Your task to perform on an android device: change the upload size in google photos Image 0: 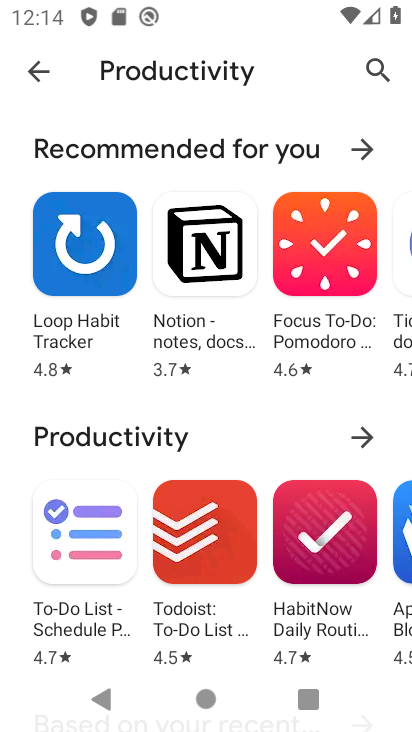
Step 0: press home button
Your task to perform on an android device: change the upload size in google photos Image 1: 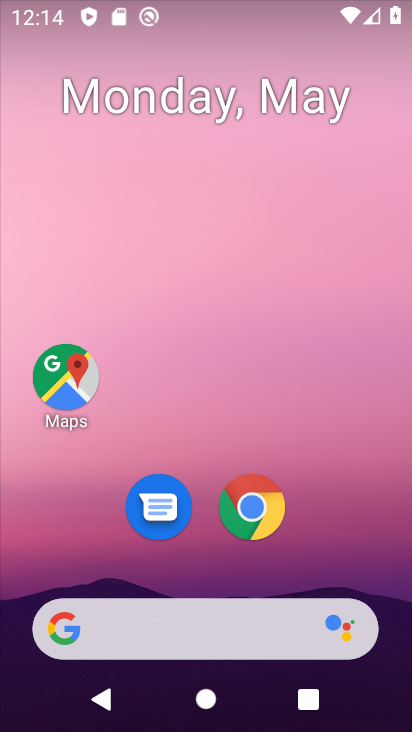
Step 1: drag from (243, 724) to (248, 49)
Your task to perform on an android device: change the upload size in google photos Image 2: 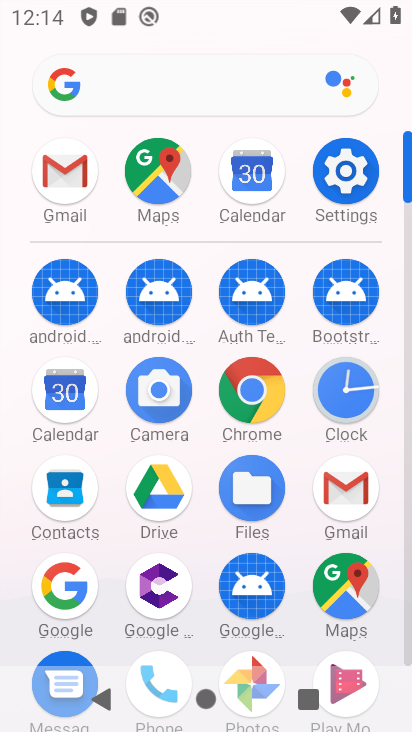
Step 2: drag from (284, 640) to (290, 232)
Your task to perform on an android device: change the upload size in google photos Image 3: 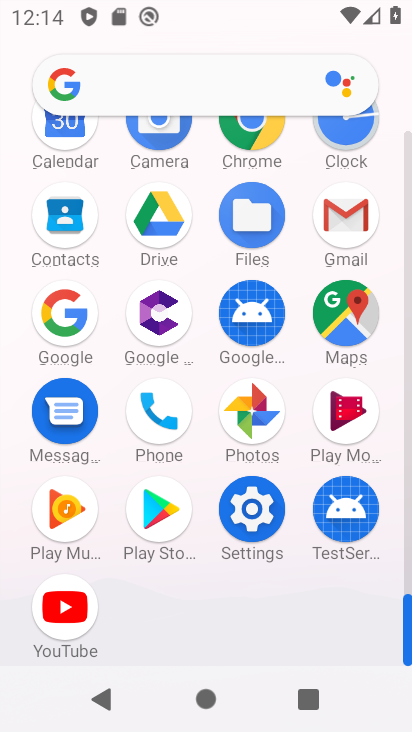
Step 3: click (260, 417)
Your task to perform on an android device: change the upload size in google photos Image 4: 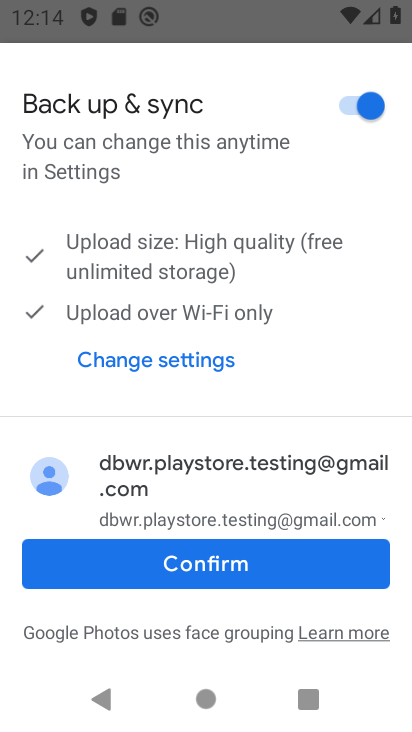
Step 4: click (220, 559)
Your task to perform on an android device: change the upload size in google photos Image 5: 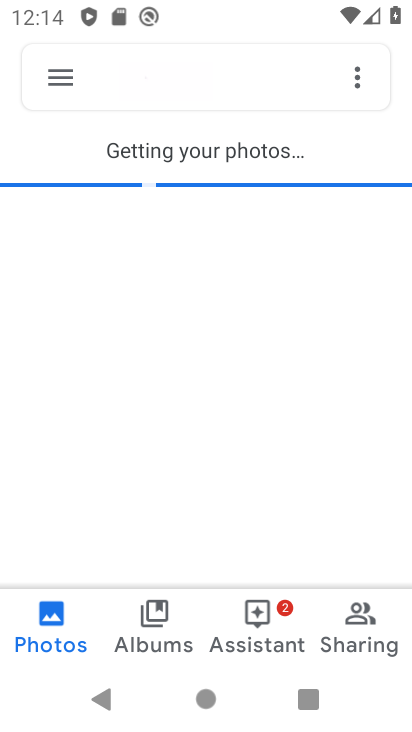
Step 5: click (62, 76)
Your task to perform on an android device: change the upload size in google photos Image 6: 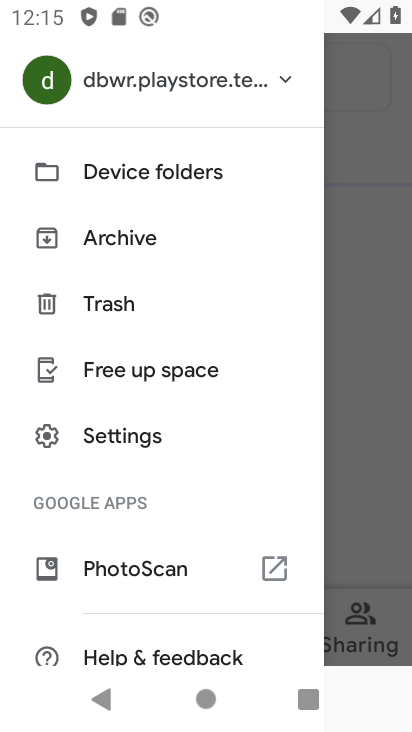
Step 6: drag from (135, 609) to (140, 272)
Your task to perform on an android device: change the upload size in google photos Image 7: 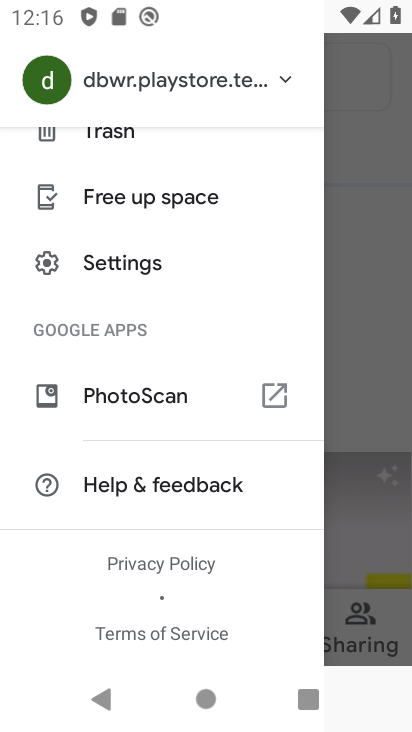
Step 7: drag from (154, 181) to (179, 577)
Your task to perform on an android device: change the upload size in google photos Image 8: 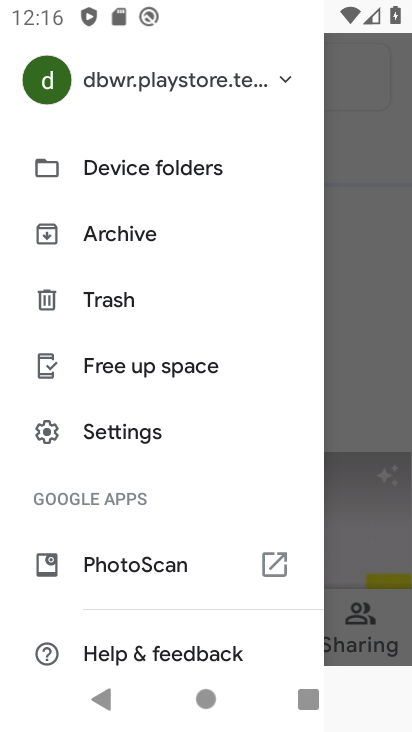
Step 8: click (123, 429)
Your task to perform on an android device: change the upload size in google photos Image 9: 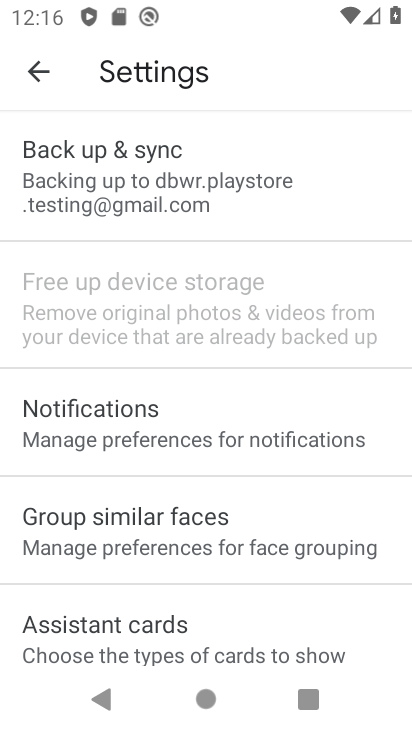
Step 9: drag from (132, 578) to (145, 641)
Your task to perform on an android device: change the upload size in google photos Image 10: 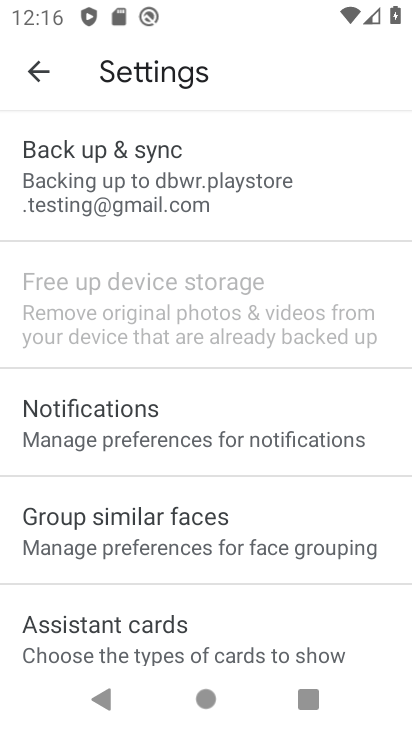
Step 10: click (132, 175)
Your task to perform on an android device: change the upload size in google photos Image 11: 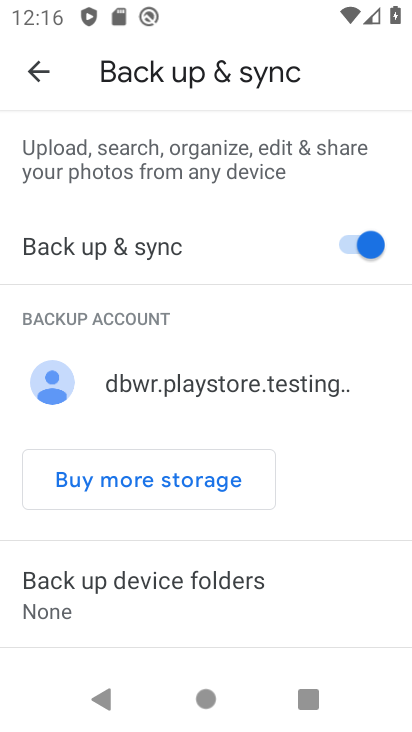
Step 11: drag from (169, 628) to (169, 216)
Your task to perform on an android device: change the upload size in google photos Image 12: 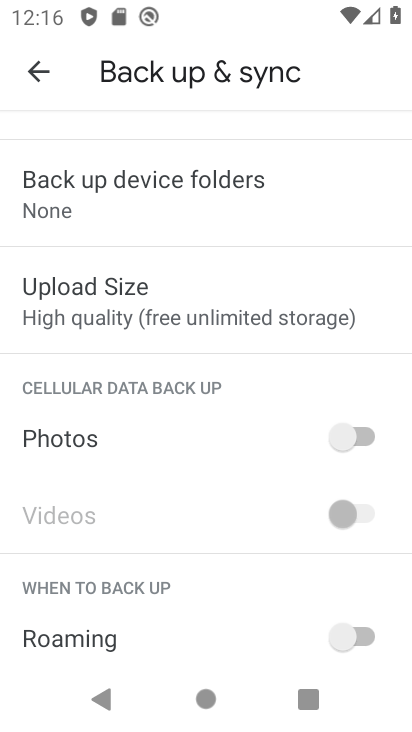
Step 12: click (99, 299)
Your task to perform on an android device: change the upload size in google photos Image 13: 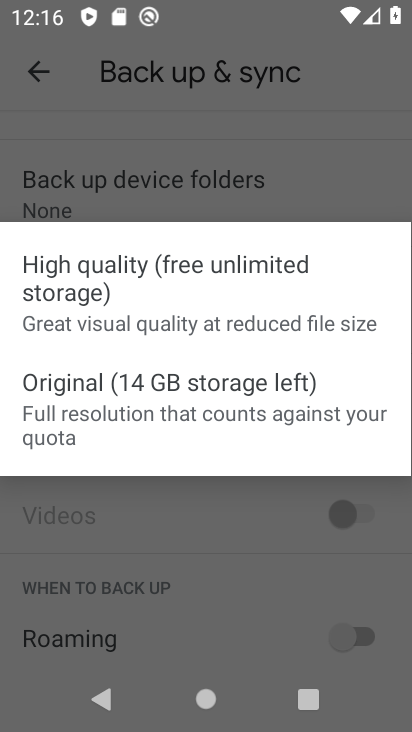
Step 13: click (135, 408)
Your task to perform on an android device: change the upload size in google photos Image 14: 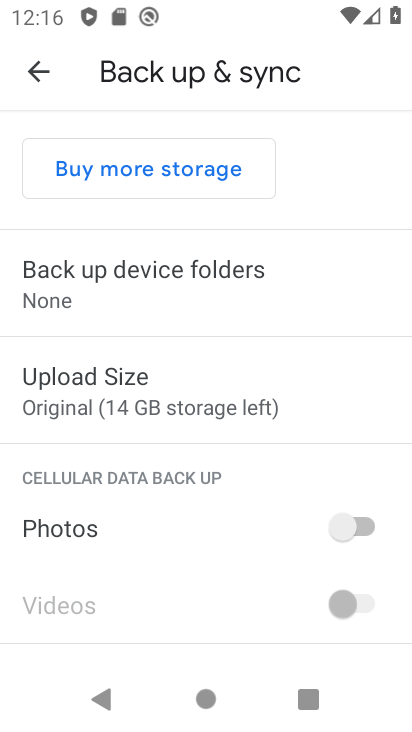
Step 14: task complete